Your task to perform on an android device: see sites visited before in the chrome app Image 0: 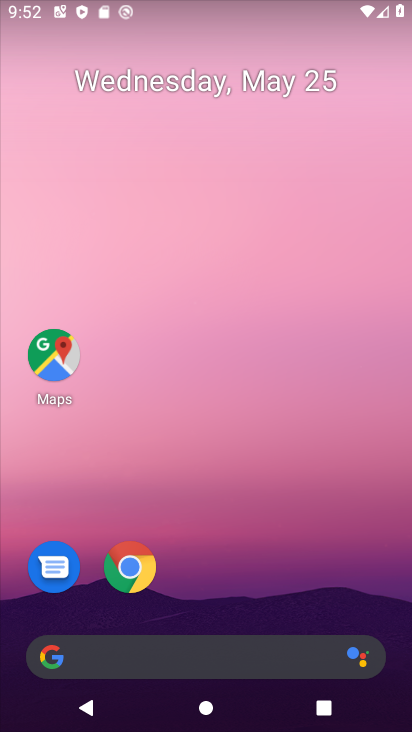
Step 0: click (122, 587)
Your task to perform on an android device: see sites visited before in the chrome app Image 1: 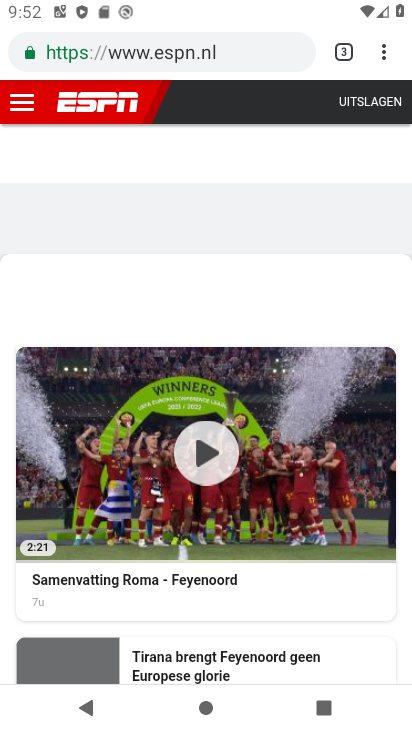
Step 1: task complete